Your task to perform on an android device: Open display settings Image 0: 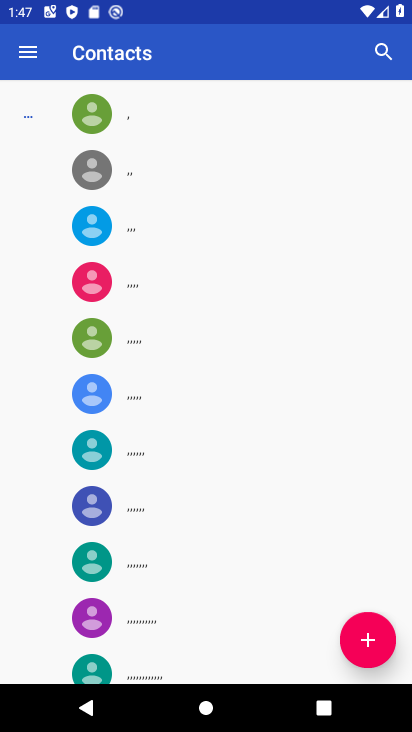
Step 0: press back button
Your task to perform on an android device: Open display settings Image 1: 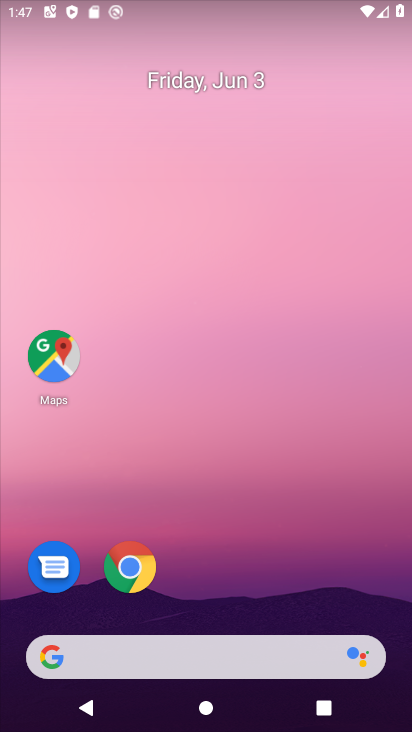
Step 1: drag from (193, 596) to (227, 127)
Your task to perform on an android device: Open display settings Image 2: 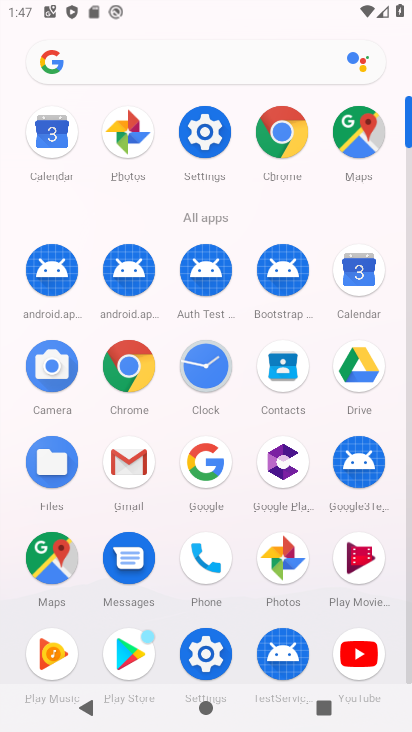
Step 2: click (213, 122)
Your task to perform on an android device: Open display settings Image 3: 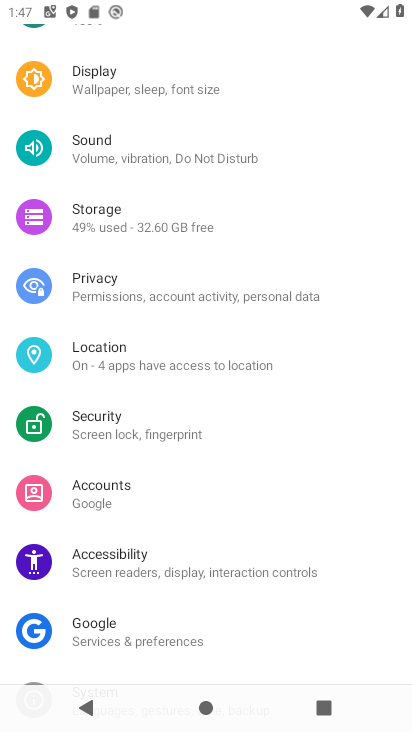
Step 3: click (115, 81)
Your task to perform on an android device: Open display settings Image 4: 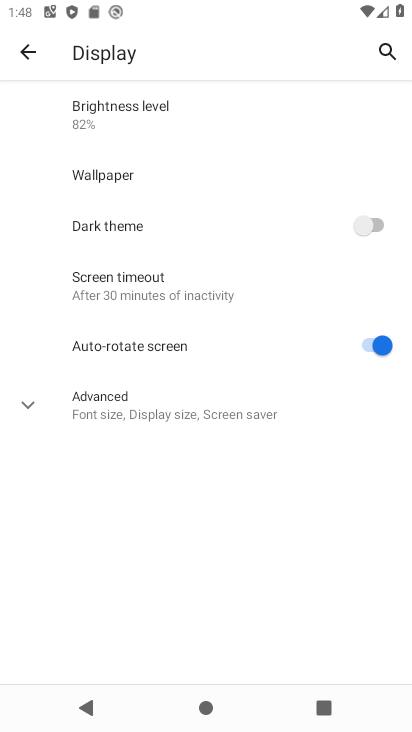
Step 4: task complete